Your task to perform on an android device: check storage Image 0: 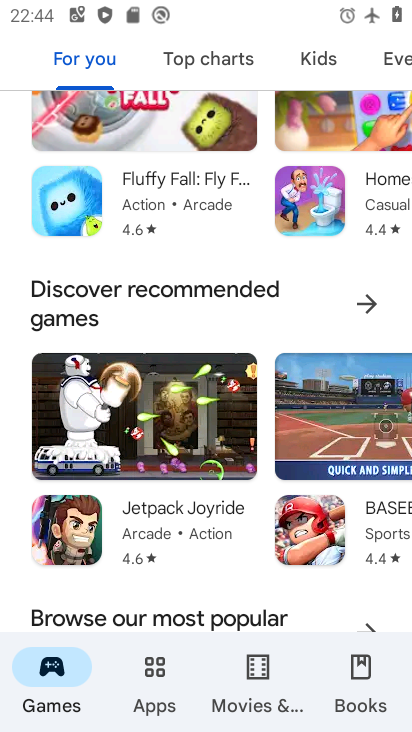
Step 0: press home button
Your task to perform on an android device: check storage Image 1: 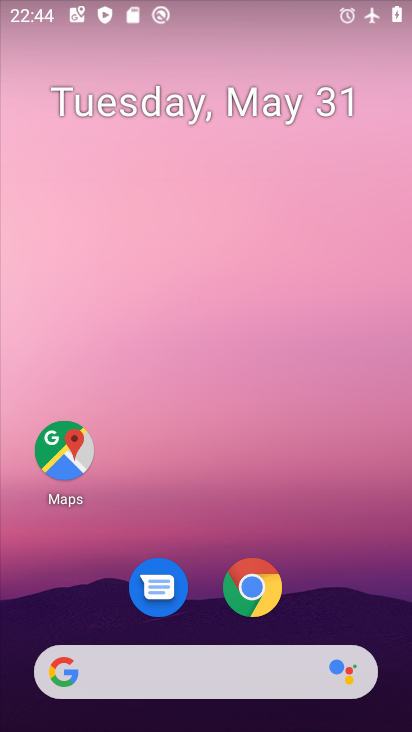
Step 1: drag from (358, 568) to (341, 208)
Your task to perform on an android device: check storage Image 2: 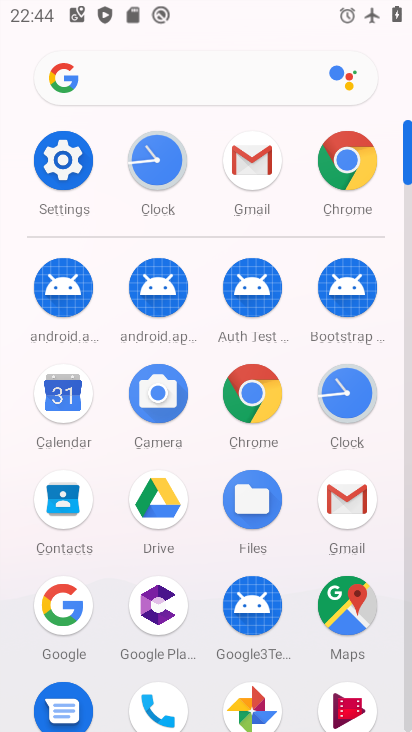
Step 2: click (68, 172)
Your task to perform on an android device: check storage Image 3: 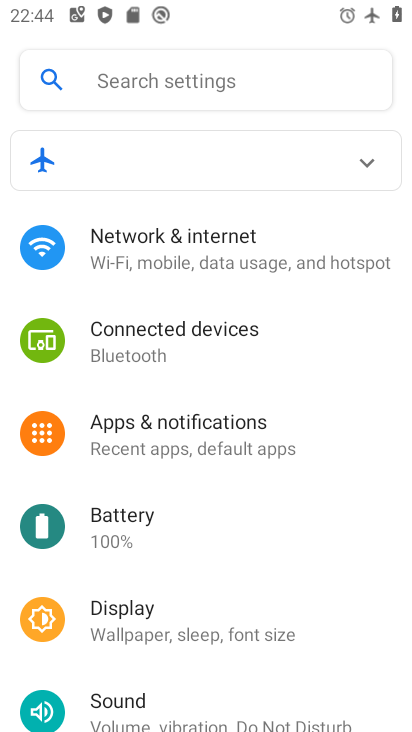
Step 3: drag from (334, 466) to (326, 362)
Your task to perform on an android device: check storage Image 4: 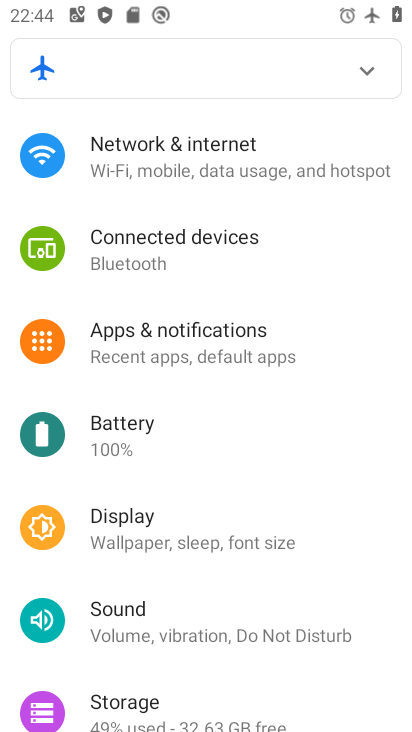
Step 4: drag from (336, 481) to (335, 316)
Your task to perform on an android device: check storage Image 5: 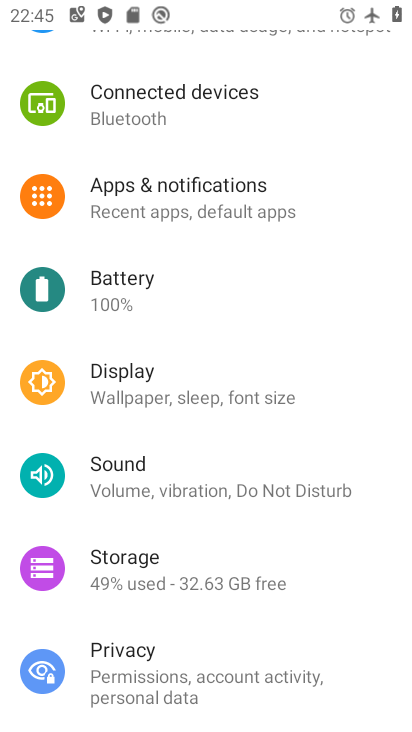
Step 5: drag from (351, 529) to (326, 315)
Your task to perform on an android device: check storage Image 6: 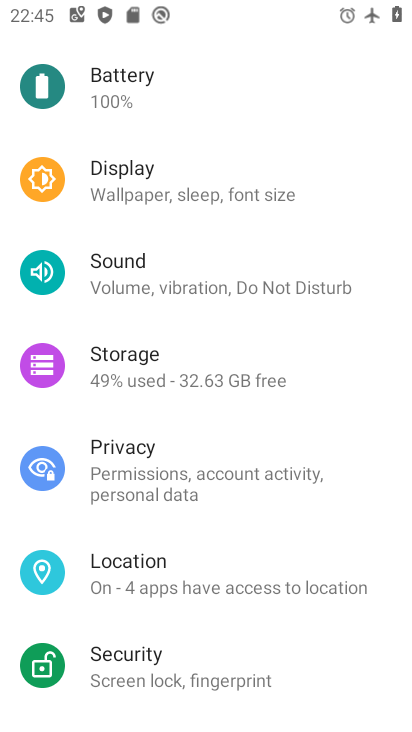
Step 6: drag from (356, 428) to (353, 276)
Your task to perform on an android device: check storage Image 7: 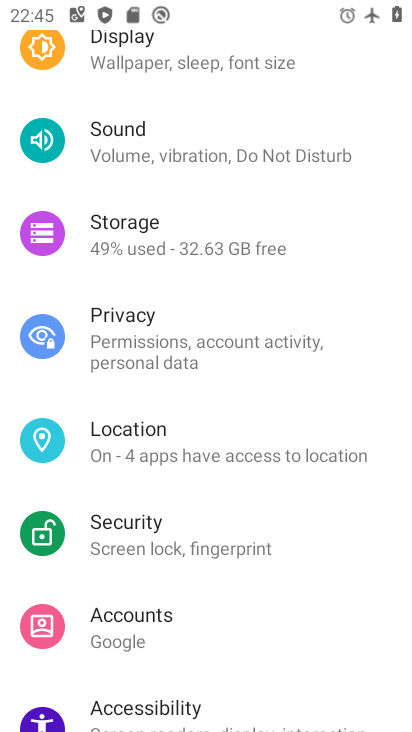
Step 7: drag from (333, 524) to (340, 298)
Your task to perform on an android device: check storage Image 8: 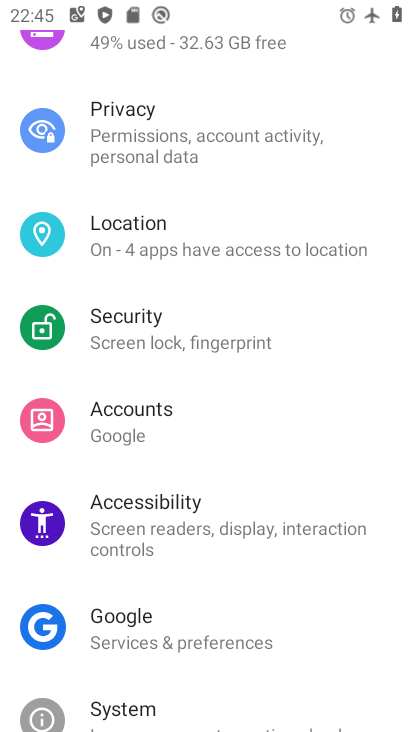
Step 8: drag from (346, 585) to (330, 328)
Your task to perform on an android device: check storage Image 9: 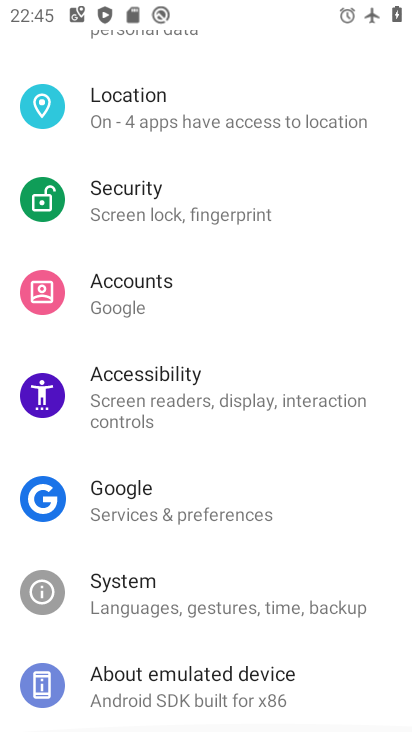
Step 9: drag from (327, 287) to (347, 439)
Your task to perform on an android device: check storage Image 10: 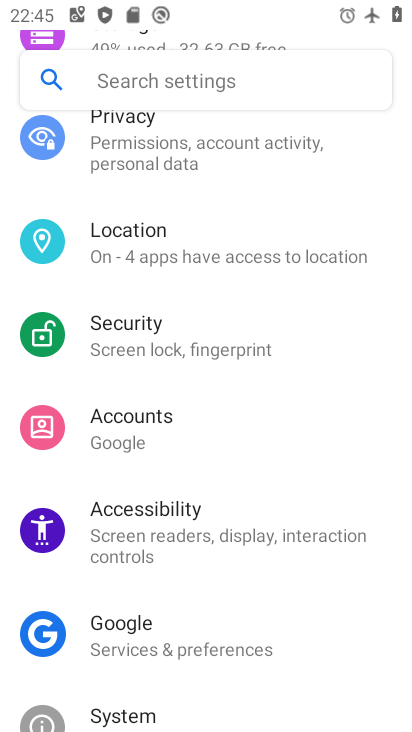
Step 10: drag from (335, 199) to (348, 375)
Your task to perform on an android device: check storage Image 11: 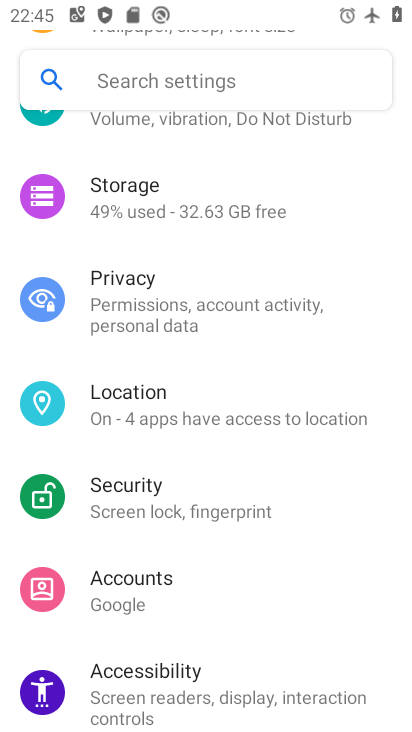
Step 11: click (306, 207)
Your task to perform on an android device: check storage Image 12: 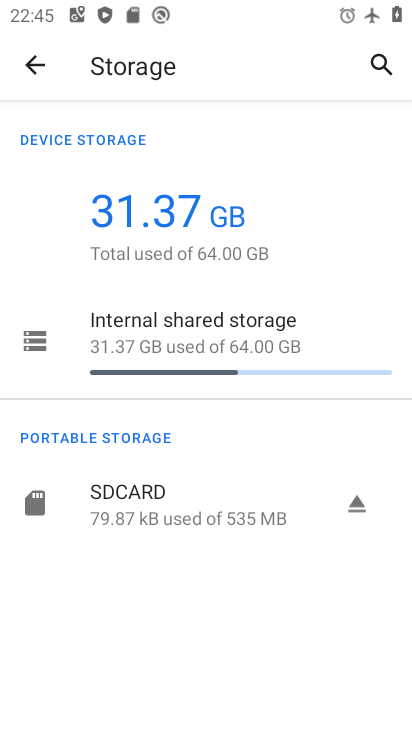
Step 12: task complete